Your task to perform on an android device: toggle translation in the chrome app Image 0: 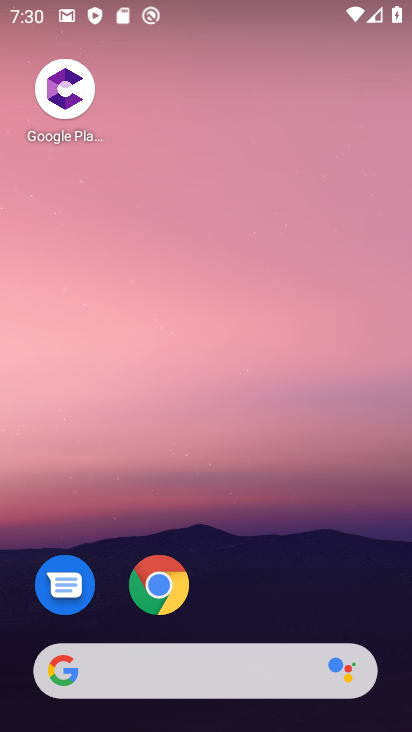
Step 0: click (151, 580)
Your task to perform on an android device: toggle translation in the chrome app Image 1: 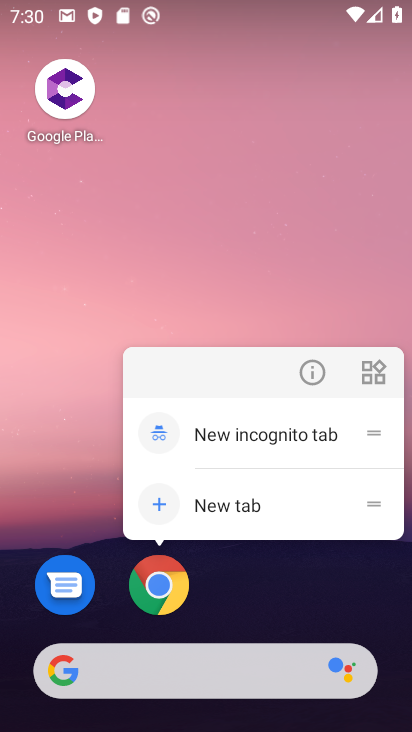
Step 1: click (166, 598)
Your task to perform on an android device: toggle translation in the chrome app Image 2: 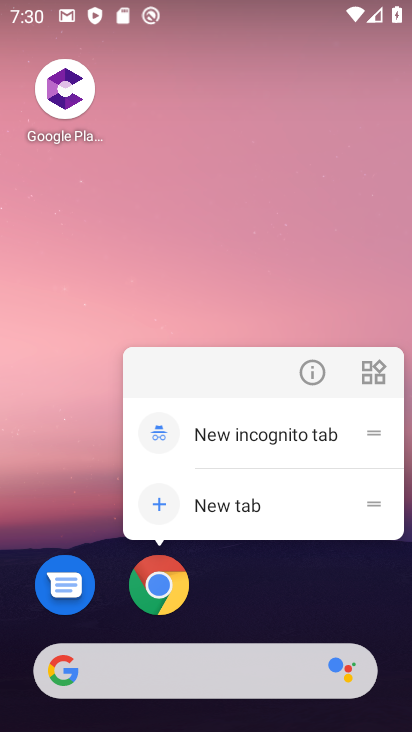
Step 2: click (161, 584)
Your task to perform on an android device: toggle translation in the chrome app Image 3: 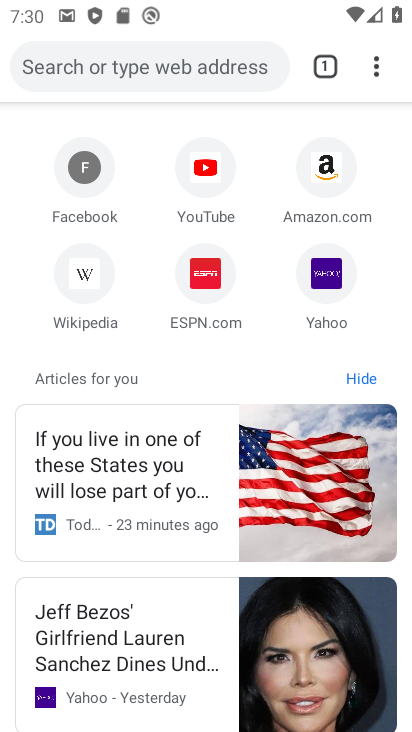
Step 3: drag from (376, 68) to (184, 557)
Your task to perform on an android device: toggle translation in the chrome app Image 4: 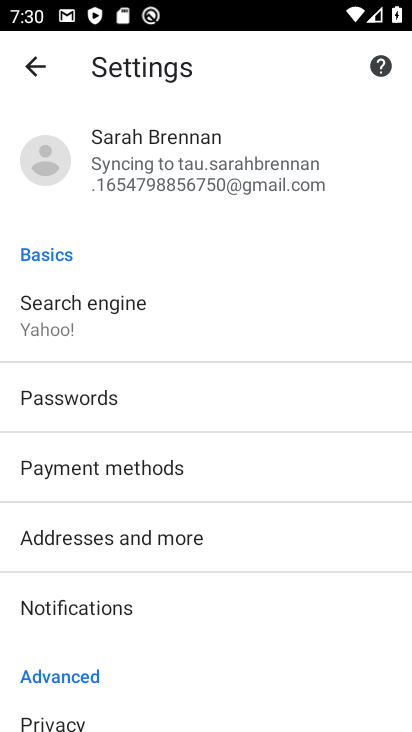
Step 4: drag from (201, 583) to (289, 183)
Your task to perform on an android device: toggle translation in the chrome app Image 5: 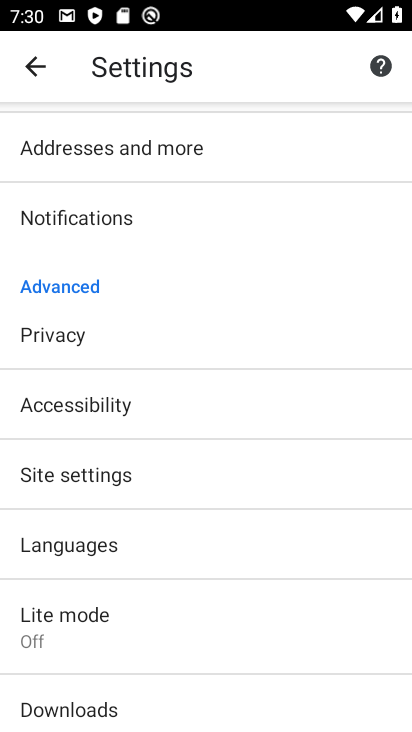
Step 5: click (80, 546)
Your task to perform on an android device: toggle translation in the chrome app Image 6: 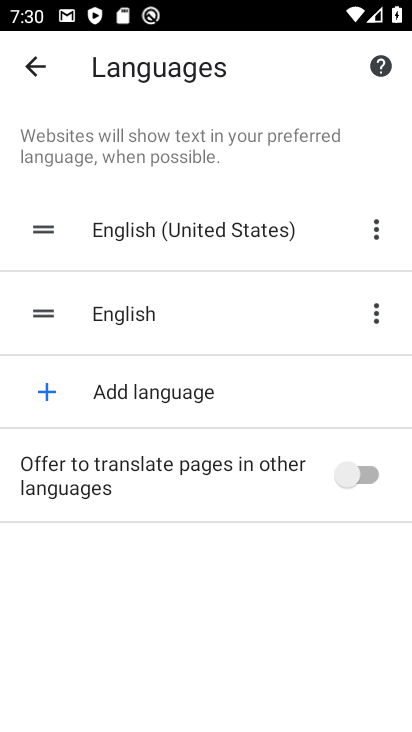
Step 6: click (365, 473)
Your task to perform on an android device: toggle translation in the chrome app Image 7: 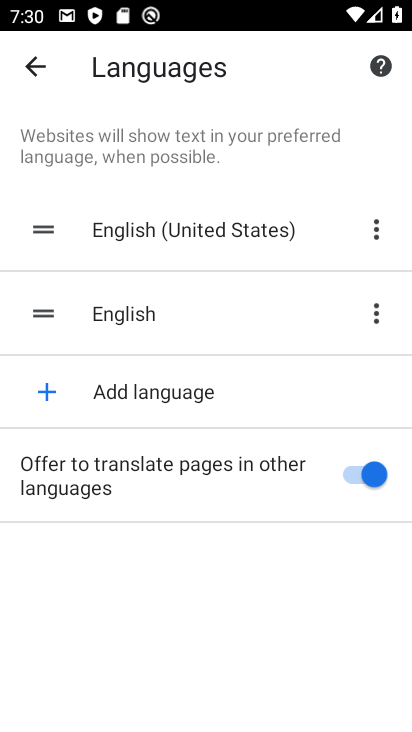
Step 7: task complete